Your task to perform on an android device: Go to network settings Image 0: 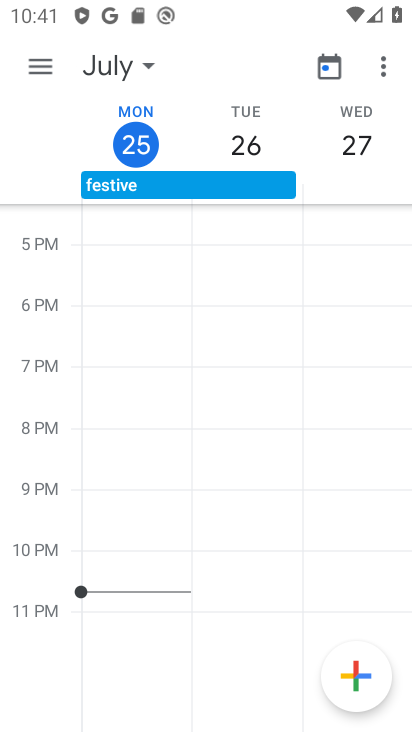
Step 0: press home button
Your task to perform on an android device: Go to network settings Image 1: 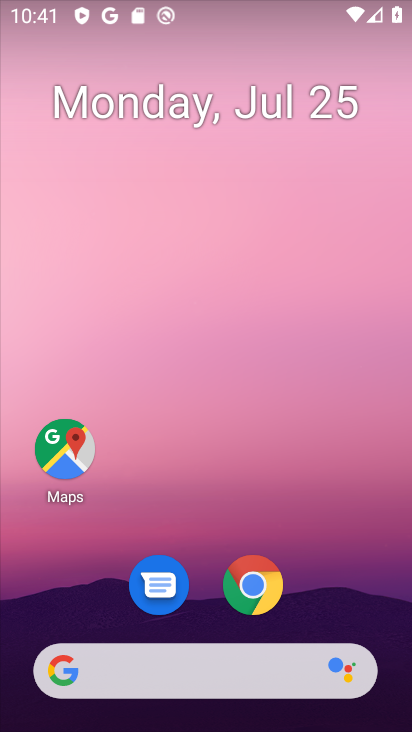
Step 1: drag from (329, 588) to (306, 49)
Your task to perform on an android device: Go to network settings Image 2: 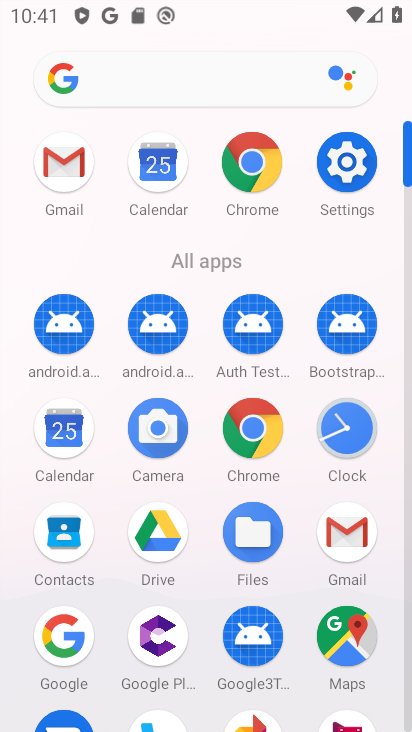
Step 2: click (340, 154)
Your task to perform on an android device: Go to network settings Image 3: 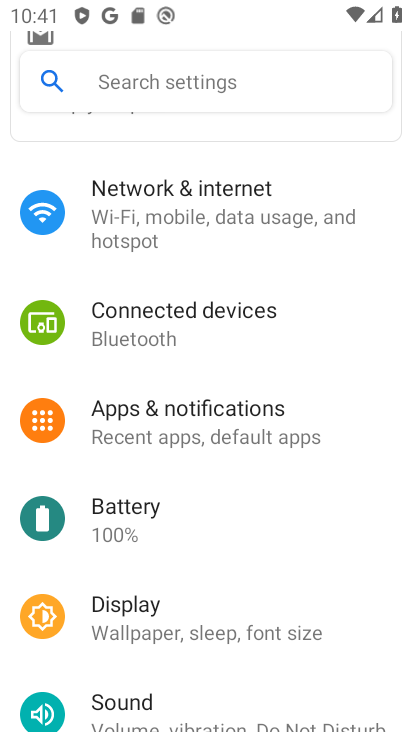
Step 3: click (269, 189)
Your task to perform on an android device: Go to network settings Image 4: 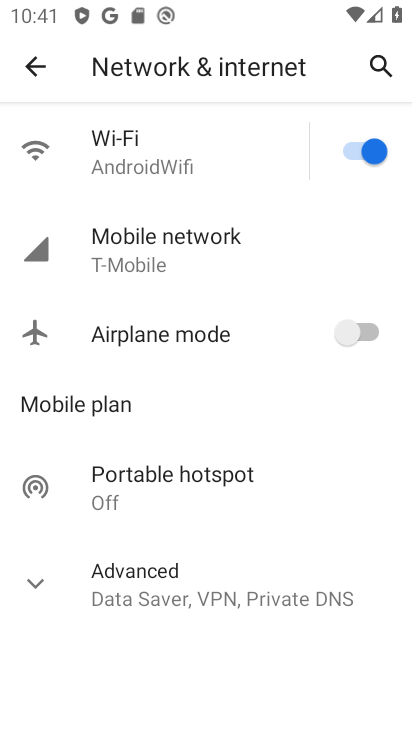
Step 4: task complete